Your task to perform on an android device: allow cookies in the chrome app Image 0: 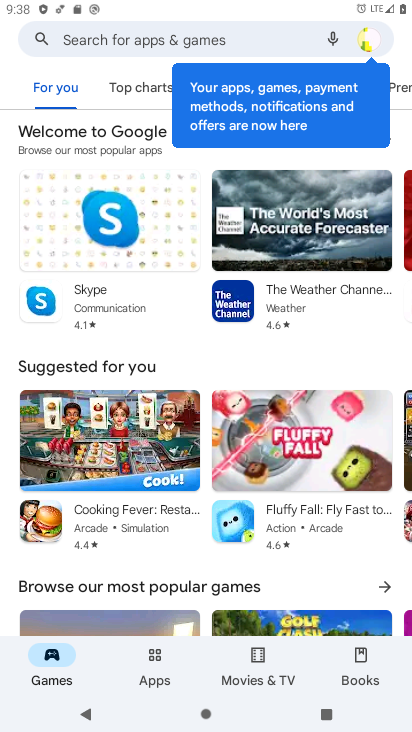
Step 0: press home button
Your task to perform on an android device: allow cookies in the chrome app Image 1: 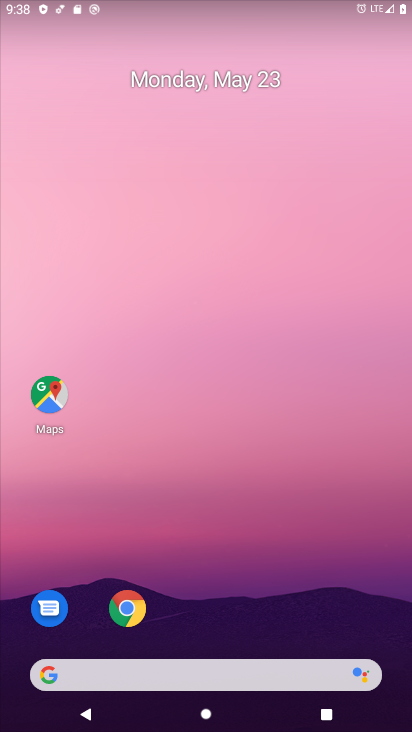
Step 1: click (133, 609)
Your task to perform on an android device: allow cookies in the chrome app Image 2: 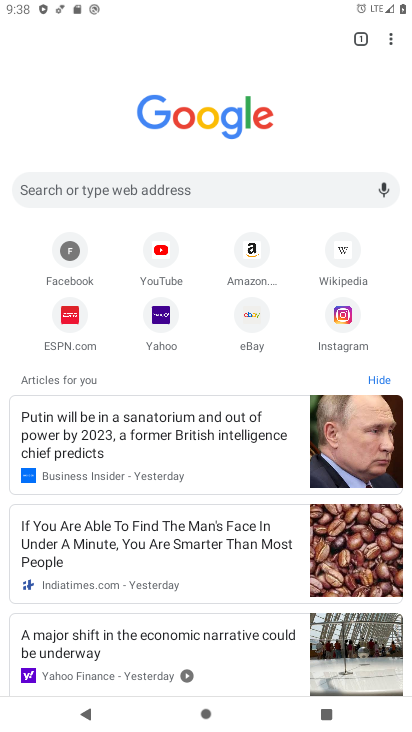
Step 2: click (397, 28)
Your task to perform on an android device: allow cookies in the chrome app Image 3: 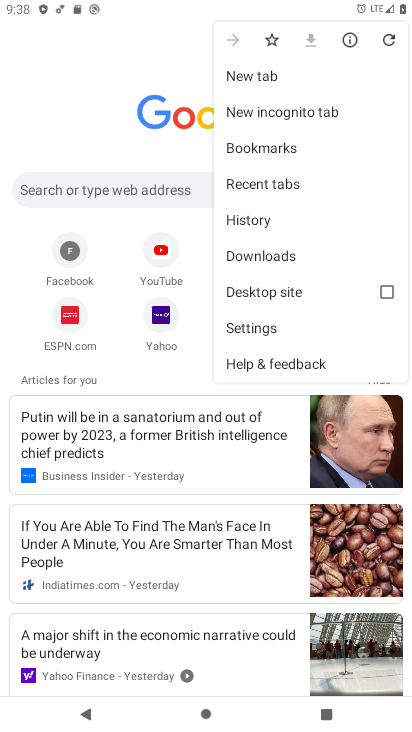
Step 3: click (284, 330)
Your task to perform on an android device: allow cookies in the chrome app Image 4: 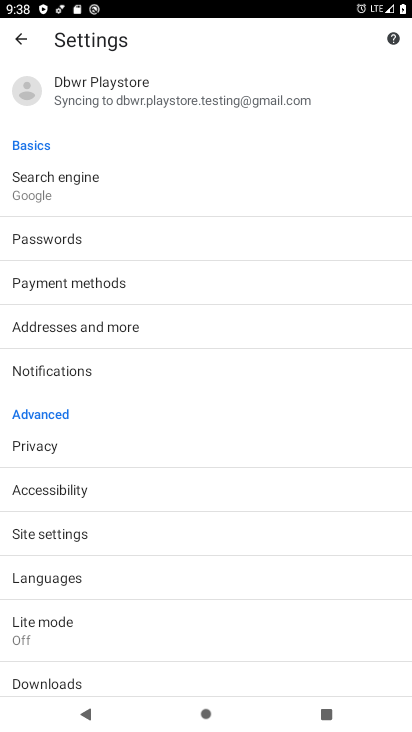
Step 4: click (42, 546)
Your task to perform on an android device: allow cookies in the chrome app Image 5: 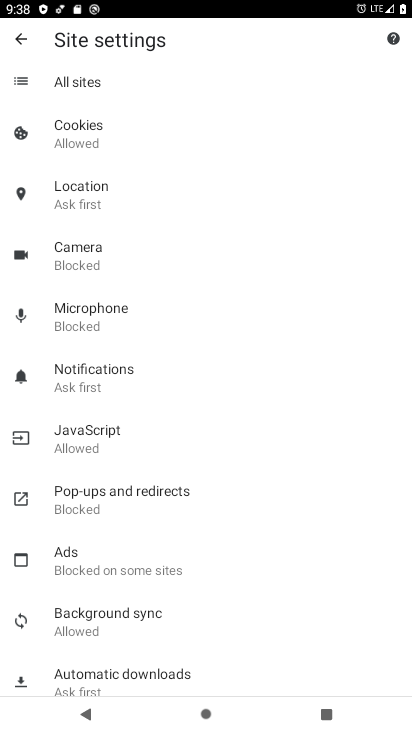
Step 5: click (172, 134)
Your task to perform on an android device: allow cookies in the chrome app Image 6: 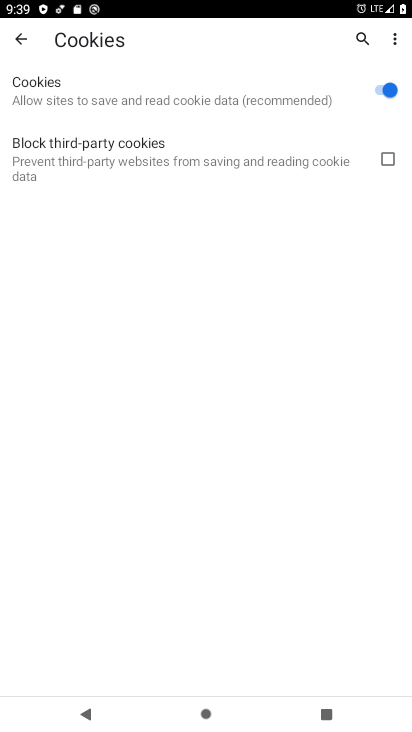
Step 6: task complete